Your task to perform on an android device: open chrome and create a bookmark for the current page Image 0: 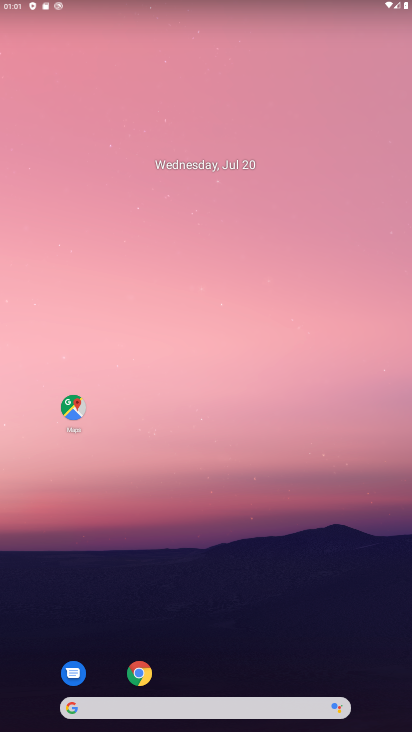
Step 0: click (149, 676)
Your task to perform on an android device: open chrome and create a bookmark for the current page Image 1: 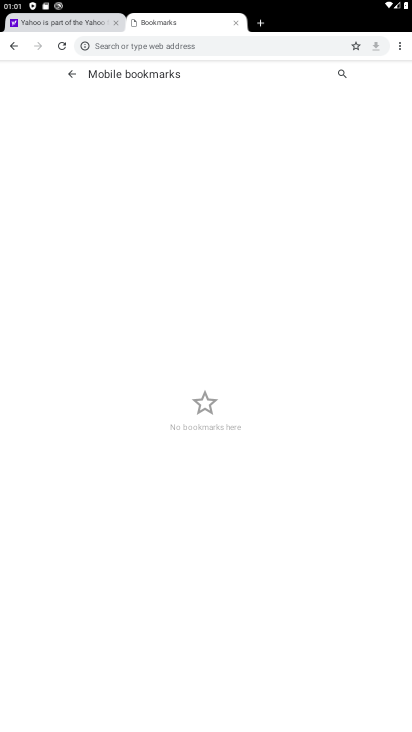
Step 1: click (354, 51)
Your task to perform on an android device: open chrome and create a bookmark for the current page Image 2: 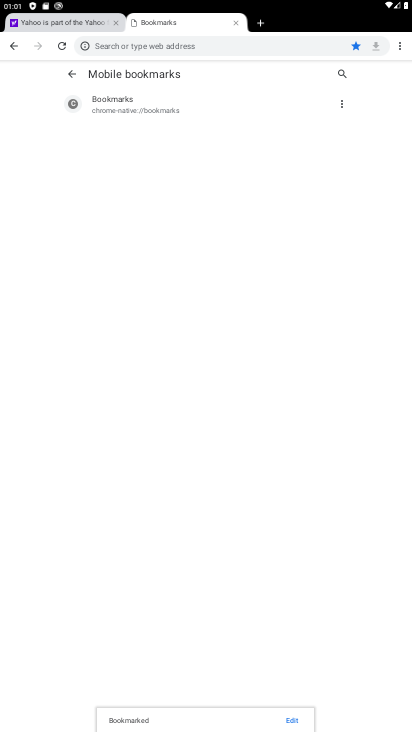
Step 2: task complete